Your task to perform on an android device: search for starred emails in the gmail app Image 0: 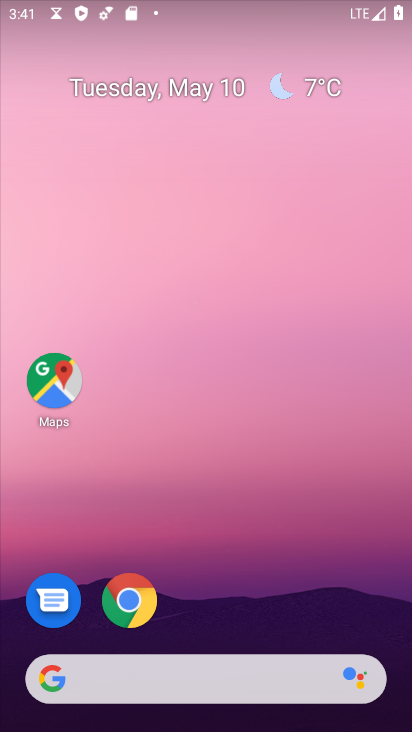
Step 0: drag from (240, 608) to (321, 260)
Your task to perform on an android device: search for starred emails in the gmail app Image 1: 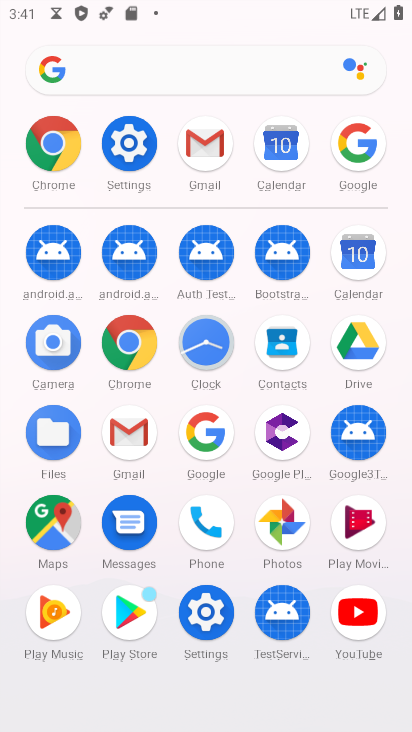
Step 1: click (209, 167)
Your task to perform on an android device: search for starred emails in the gmail app Image 2: 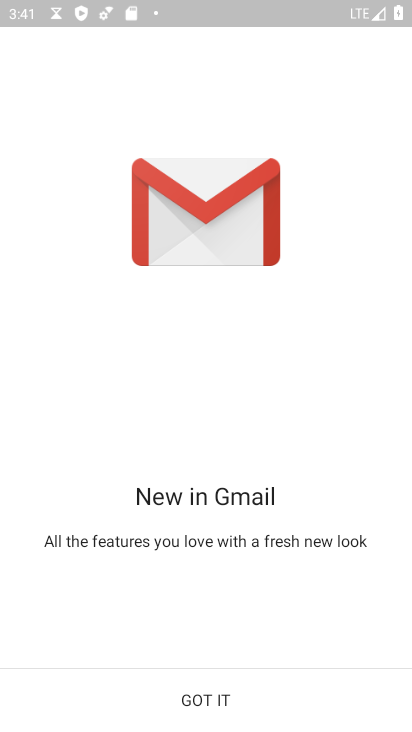
Step 2: task complete